Your task to perform on an android device: turn off location Image 0: 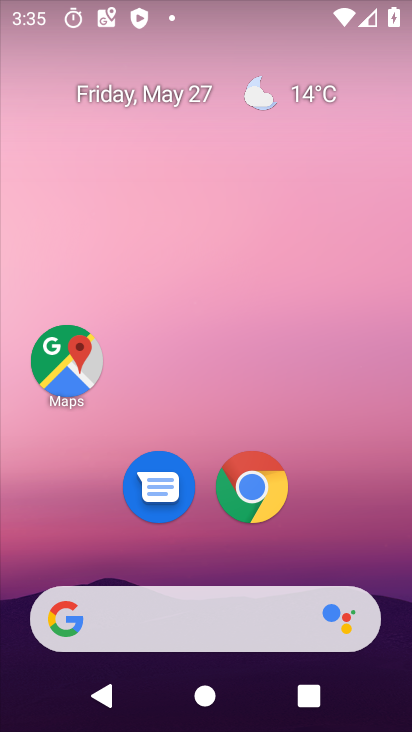
Step 0: drag from (321, 487) to (321, 86)
Your task to perform on an android device: turn off location Image 1: 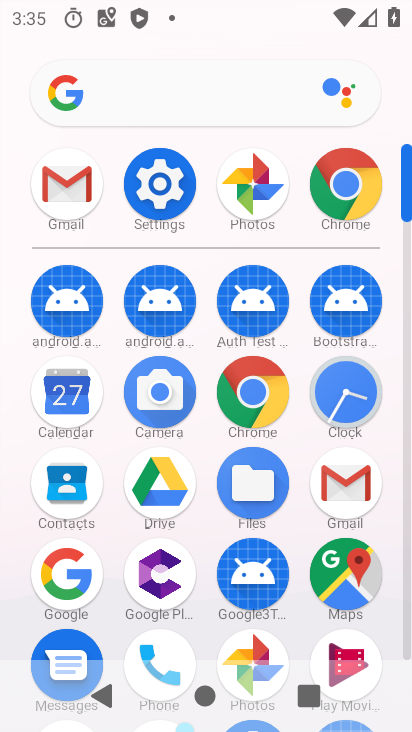
Step 1: click (151, 195)
Your task to perform on an android device: turn off location Image 2: 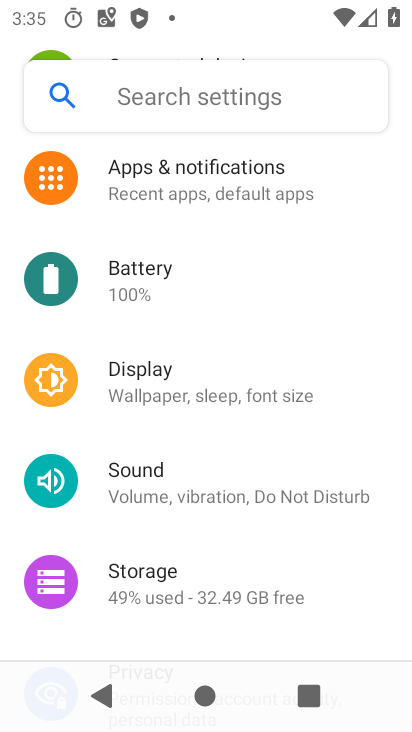
Step 2: drag from (199, 231) to (171, 594)
Your task to perform on an android device: turn off location Image 3: 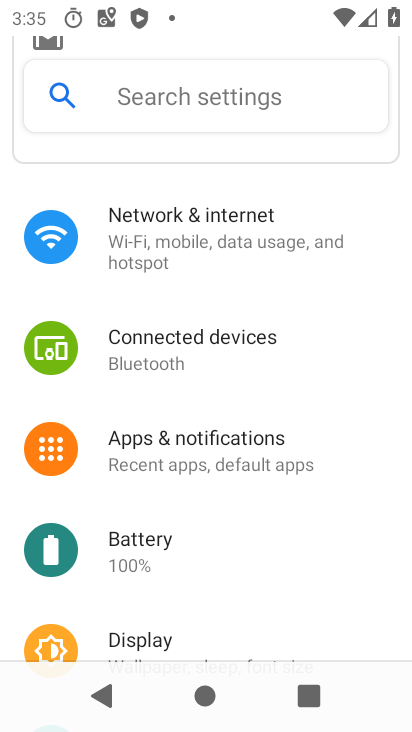
Step 3: drag from (179, 509) to (242, 52)
Your task to perform on an android device: turn off location Image 4: 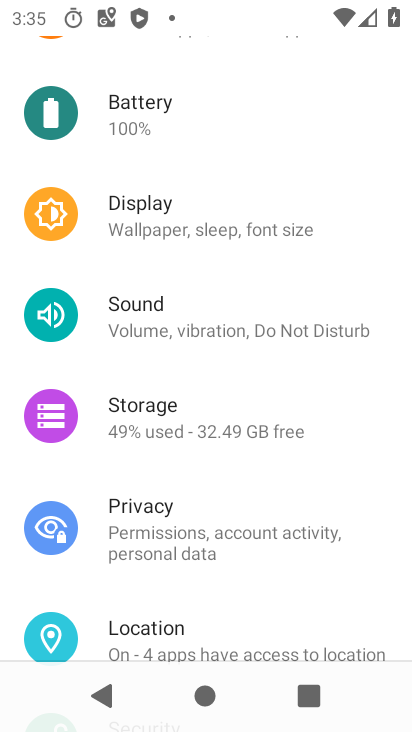
Step 4: drag from (191, 532) to (230, 237)
Your task to perform on an android device: turn off location Image 5: 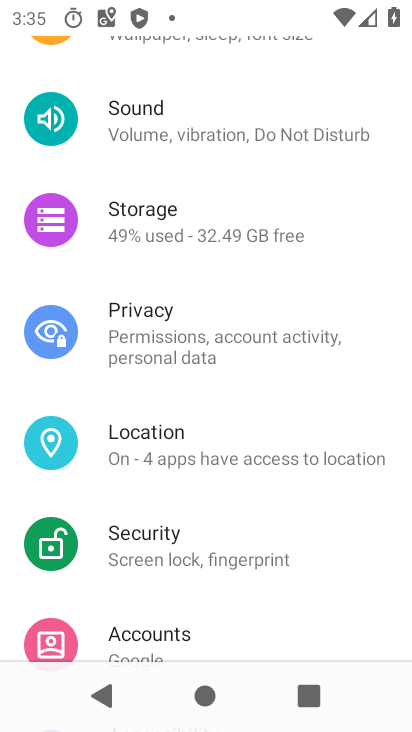
Step 5: click (173, 436)
Your task to perform on an android device: turn off location Image 6: 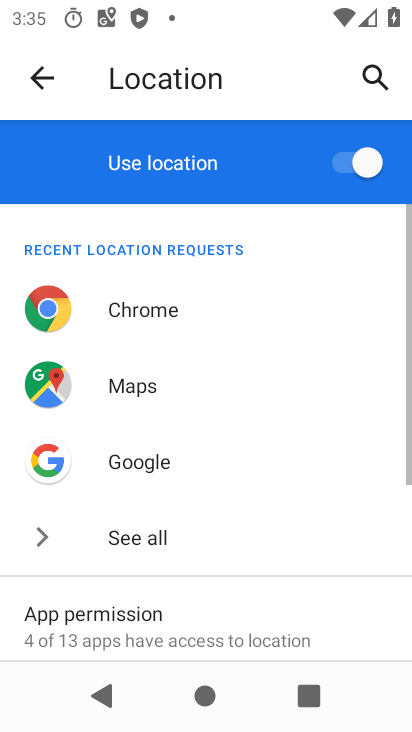
Step 6: click (343, 164)
Your task to perform on an android device: turn off location Image 7: 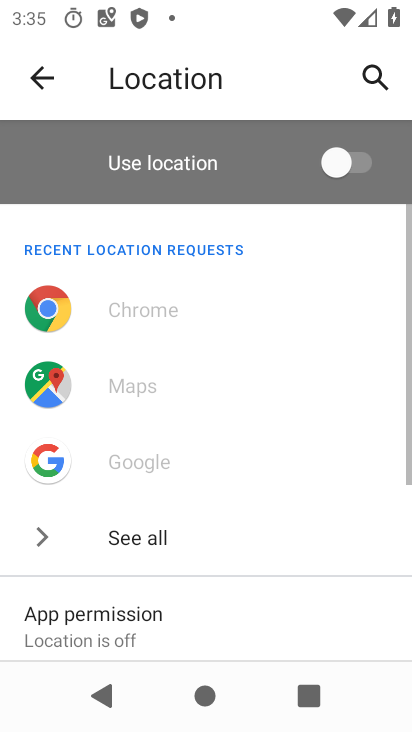
Step 7: task complete